Your task to perform on an android device: toggle location history Image 0: 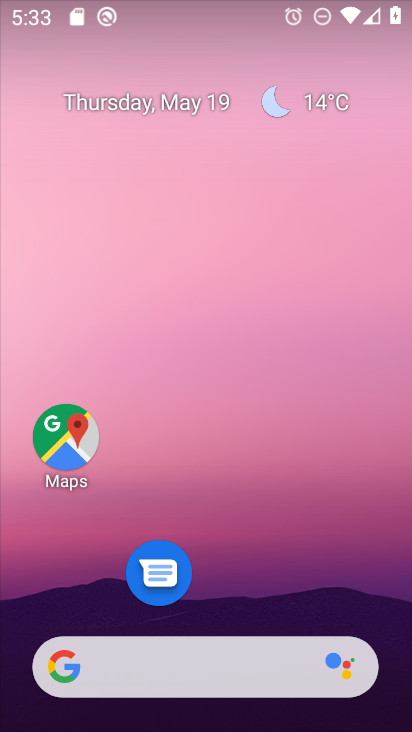
Step 0: drag from (217, 596) to (0, 360)
Your task to perform on an android device: toggle location history Image 1: 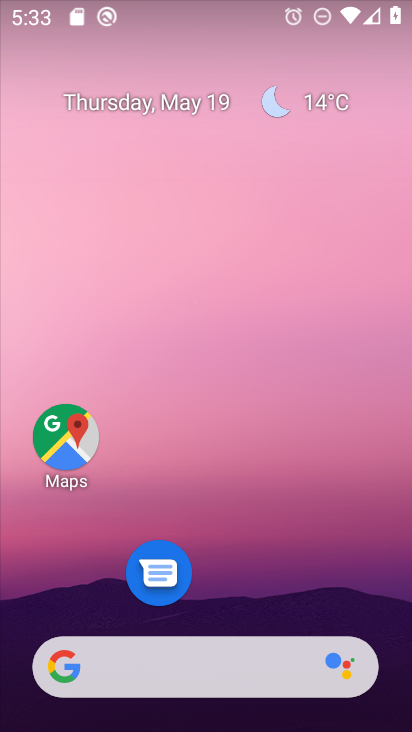
Step 1: click (147, 190)
Your task to perform on an android device: toggle location history Image 2: 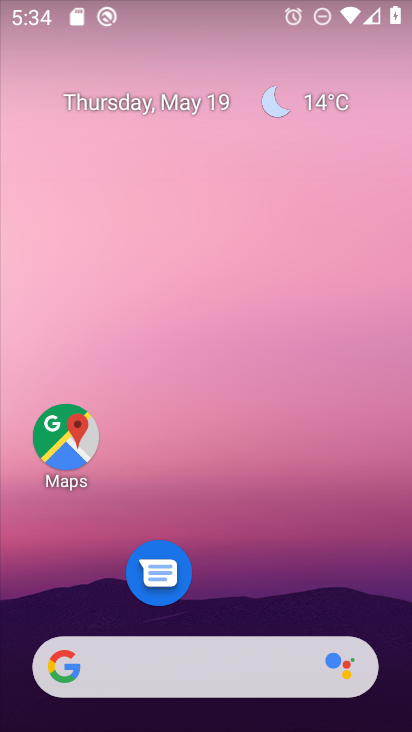
Step 2: drag from (268, 404) to (276, 174)
Your task to perform on an android device: toggle location history Image 3: 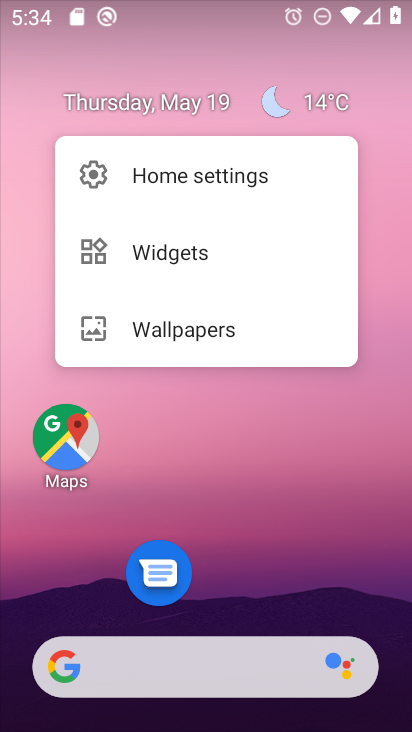
Step 3: click (277, 491)
Your task to perform on an android device: toggle location history Image 4: 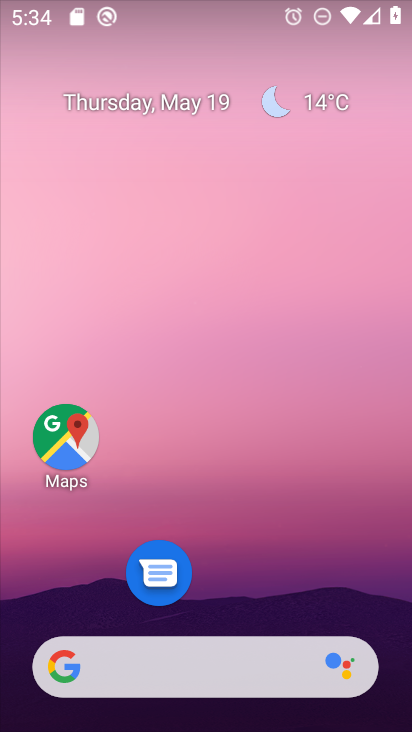
Step 4: drag from (224, 576) to (213, 169)
Your task to perform on an android device: toggle location history Image 5: 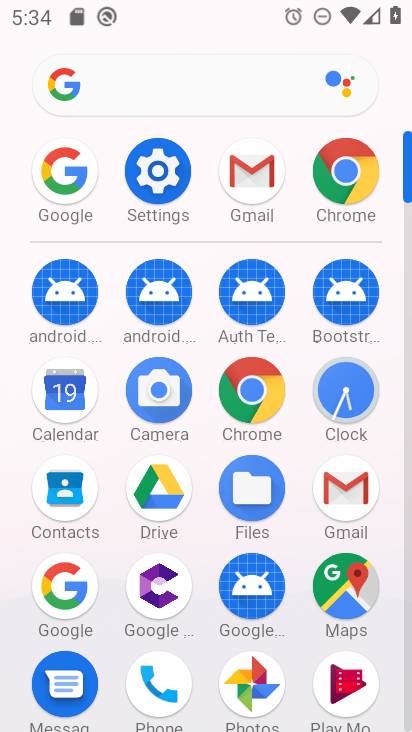
Step 5: click (153, 187)
Your task to perform on an android device: toggle location history Image 6: 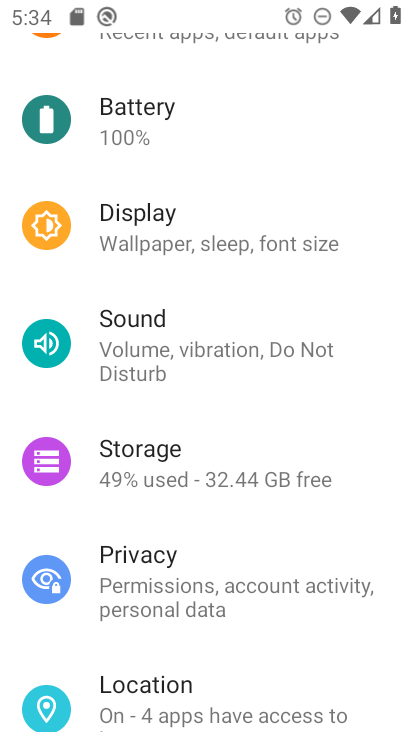
Step 6: drag from (186, 614) to (224, 303)
Your task to perform on an android device: toggle location history Image 7: 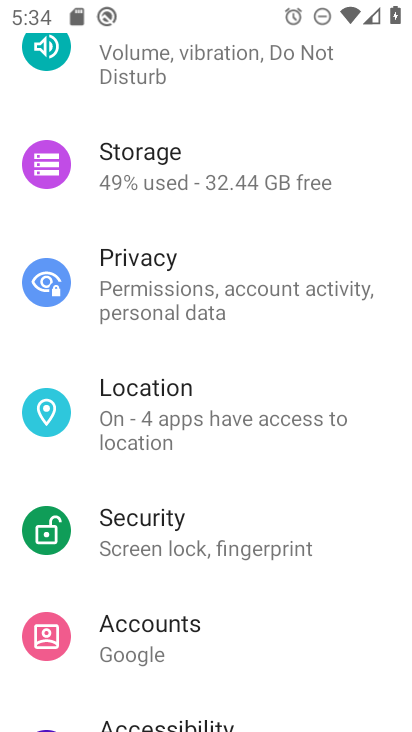
Step 7: click (174, 427)
Your task to perform on an android device: toggle location history Image 8: 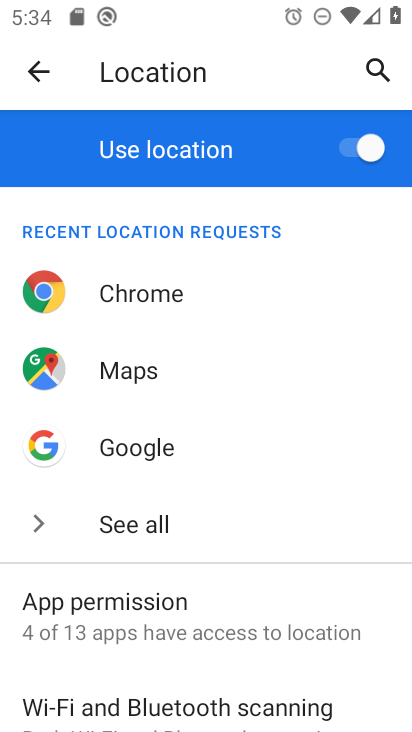
Step 8: drag from (142, 648) to (191, 404)
Your task to perform on an android device: toggle location history Image 9: 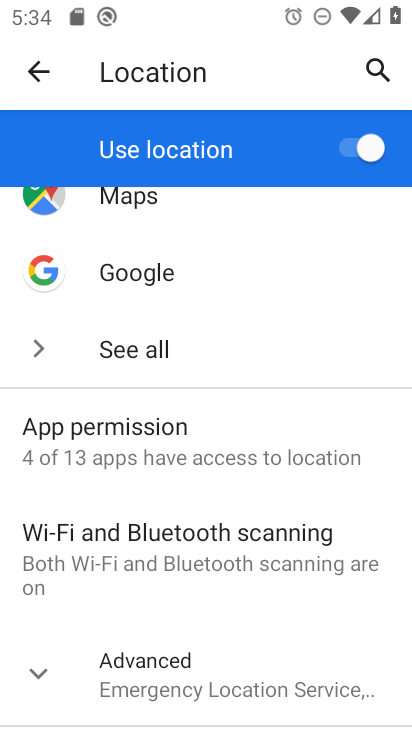
Step 9: click (157, 678)
Your task to perform on an android device: toggle location history Image 10: 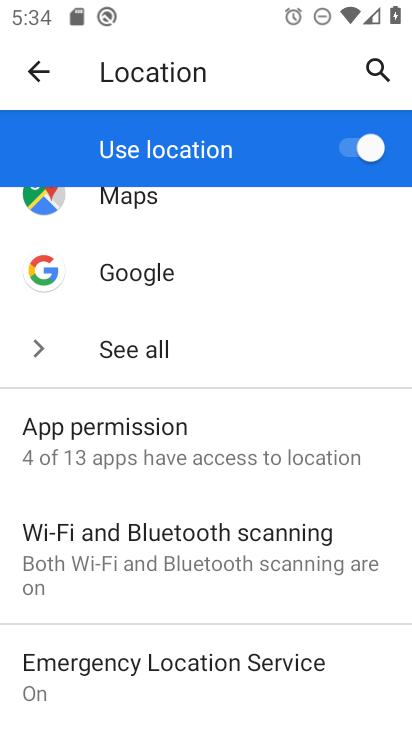
Step 10: drag from (181, 609) to (179, 276)
Your task to perform on an android device: toggle location history Image 11: 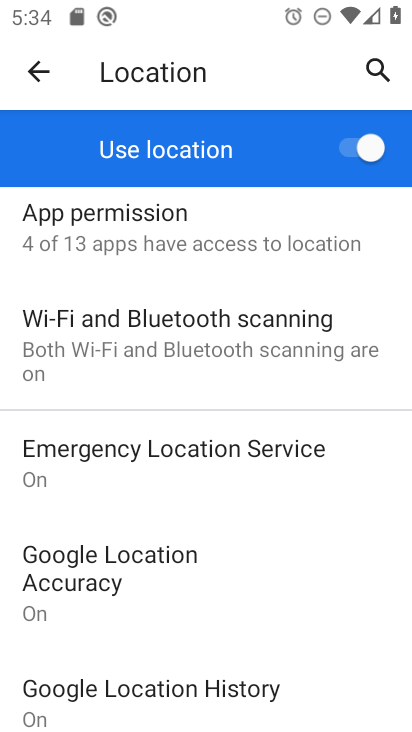
Step 11: click (152, 699)
Your task to perform on an android device: toggle location history Image 12: 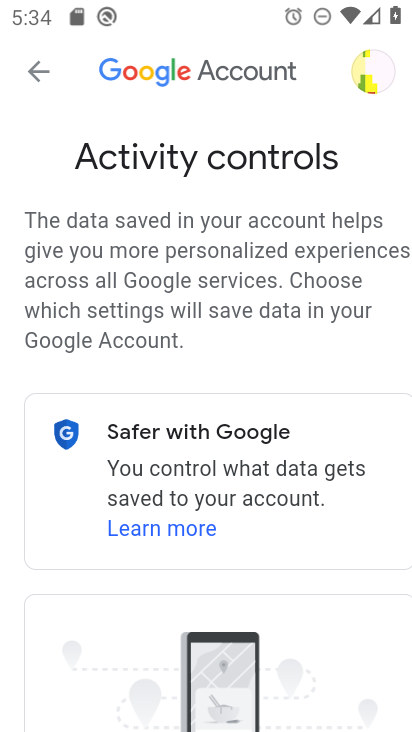
Step 12: click (269, 242)
Your task to perform on an android device: toggle location history Image 13: 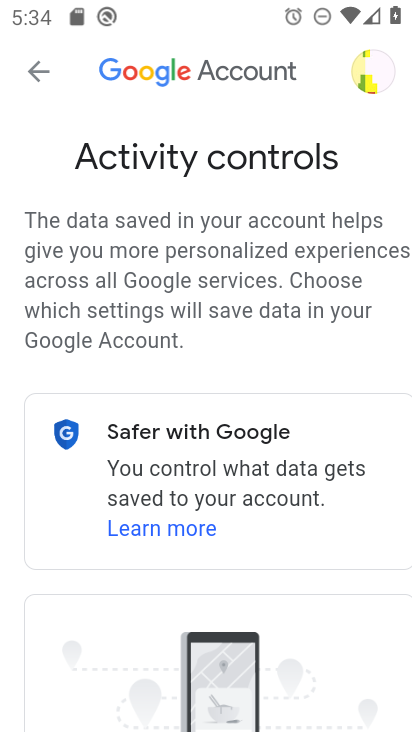
Step 13: drag from (247, 372) to (259, 119)
Your task to perform on an android device: toggle location history Image 14: 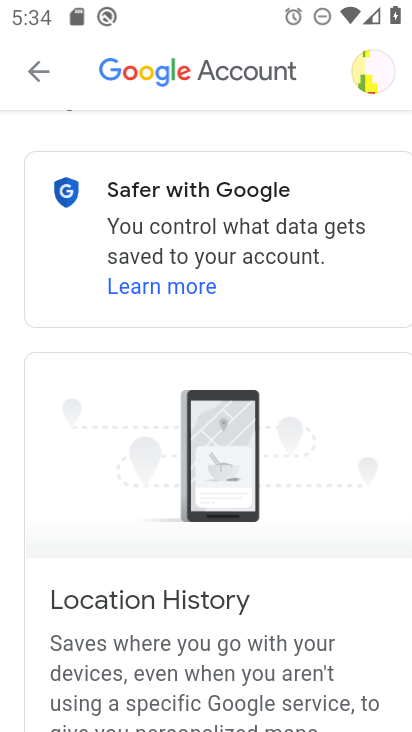
Step 14: drag from (181, 652) to (227, 283)
Your task to perform on an android device: toggle location history Image 15: 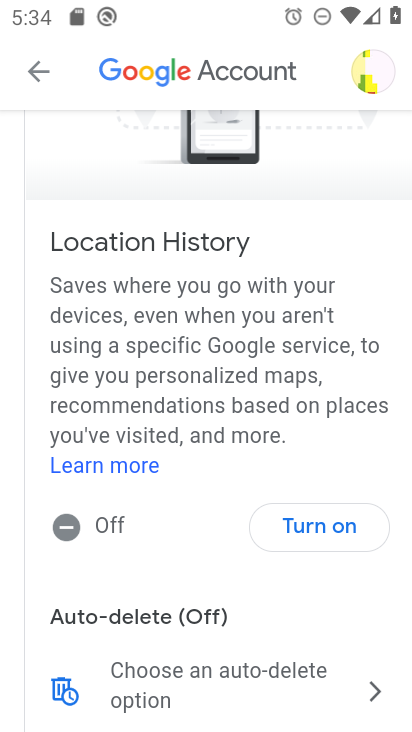
Step 15: click (297, 531)
Your task to perform on an android device: toggle location history Image 16: 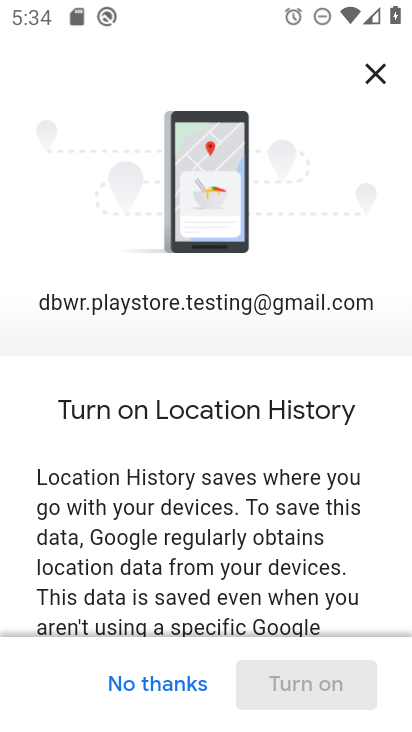
Step 16: drag from (256, 546) to (269, 201)
Your task to perform on an android device: toggle location history Image 17: 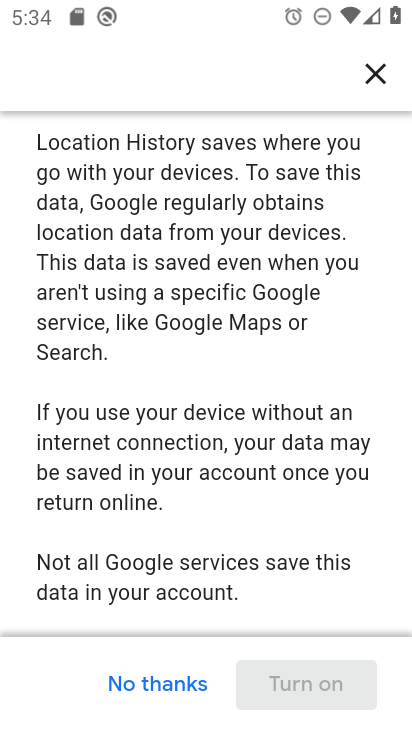
Step 17: drag from (198, 503) to (212, 192)
Your task to perform on an android device: toggle location history Image 18: 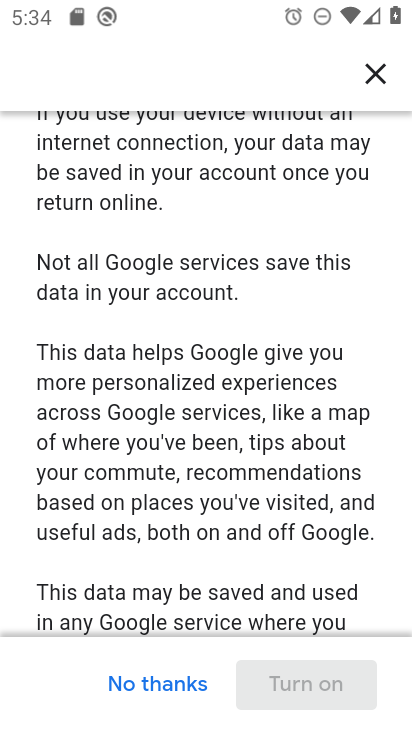
Step 18: drag from (208, 497) to (215, 123)
Your task to perform on an android device: toggle location history Image 19: 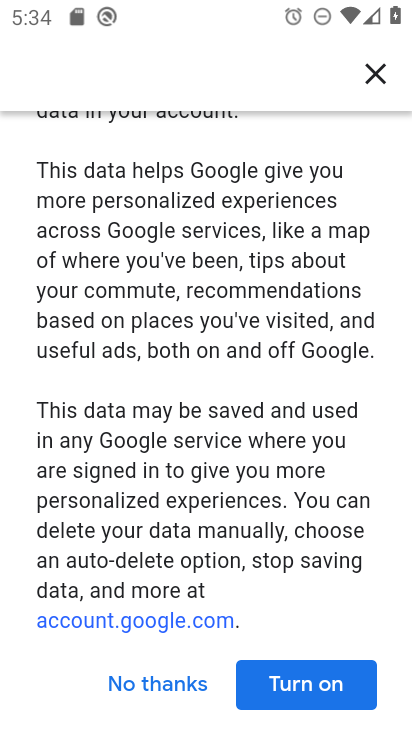
Step 19: click (274, 697)
Your task to perform on an android device: toggle location history Image 20: 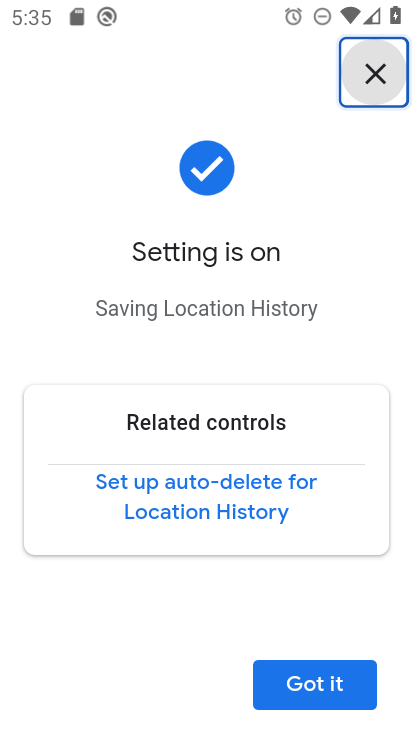
Step 20: click (304, 702)
Your task to perform on an android device: toggle location history Image 21: 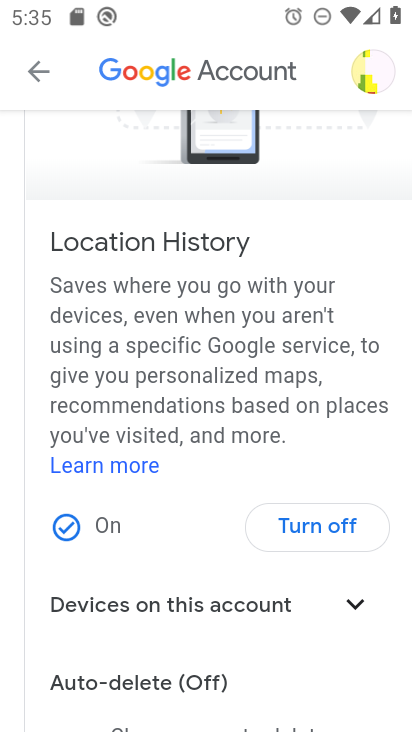
Step 21: task complete